Your task to perform on an android device: change timer sound Image 0: 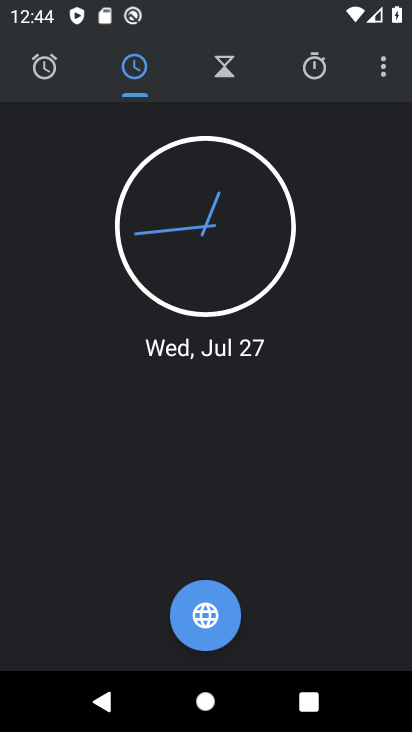
Step 0: click (386, 75)
Your task to perform on an android device: change timer sound Image 1: 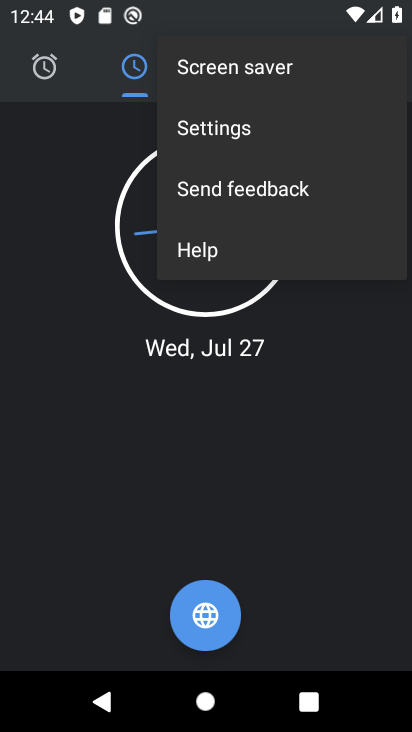
Step 1: click (295, 133)
Your task to perform on an android device: change timer sound Image 2: 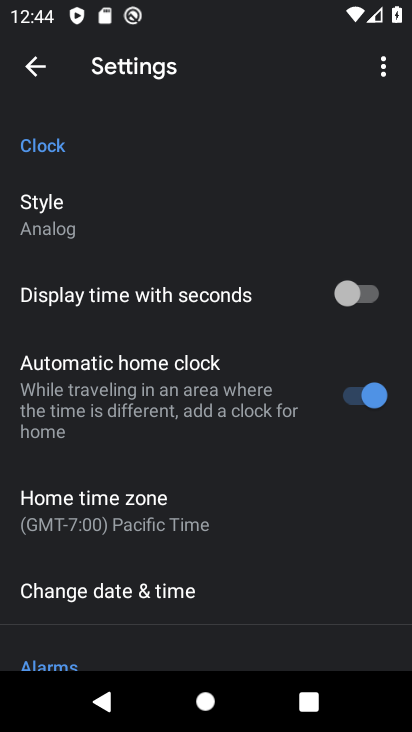
Step 2: drag from (263, 555) to (317, 6)
Your task to perform on an android device: change timer sound Image 3: 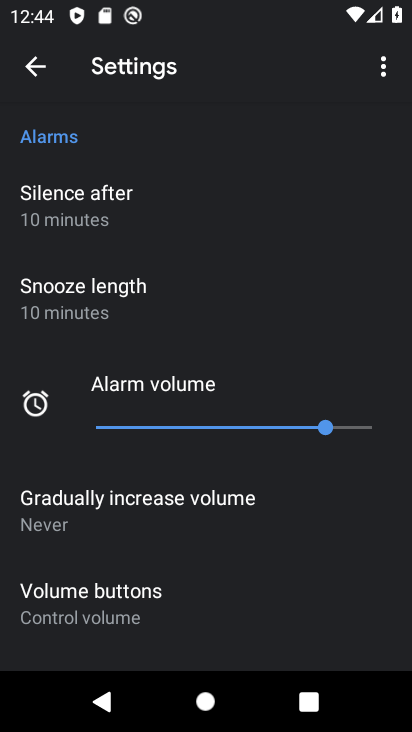
Step 3: drag from (214, 465) to (228, 59)
Your task to perform on an android device: change timer sound Image 4: 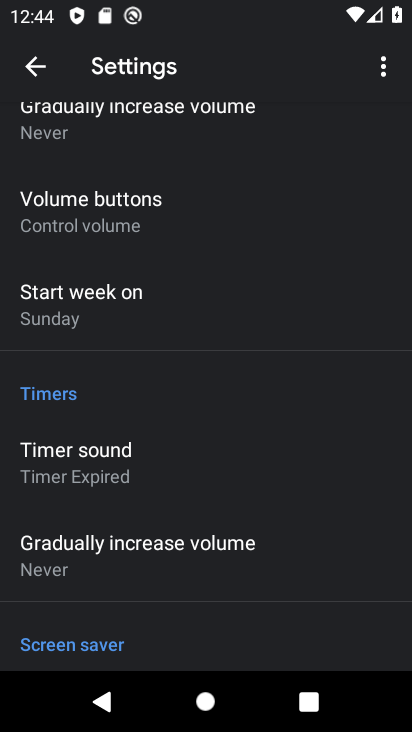
Step 4: click (108, 466)
Your task to perform on an android device: change timer sound Image 5: 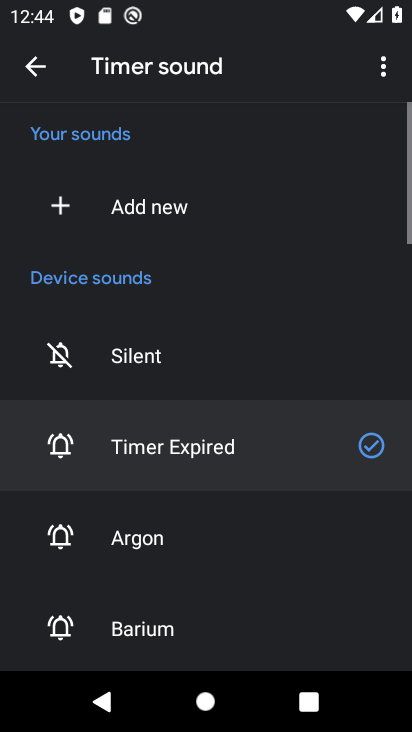
Step 5: click (127, 532)
Your task to perform on an android device: change timer sound Image 6: 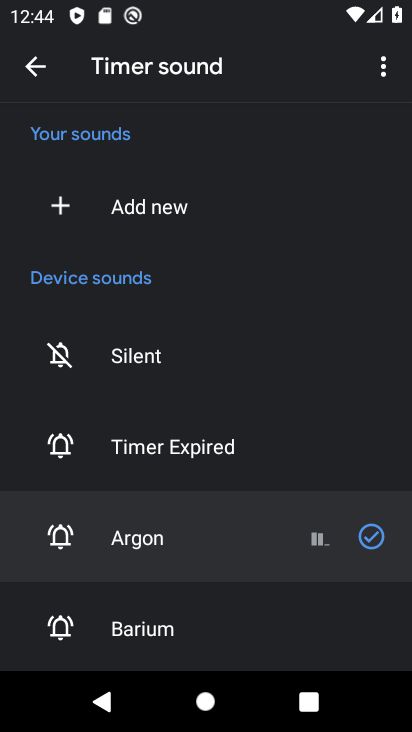
Step 6: task complete